Your task to perform on an android device: Go to sound settings Image 0: 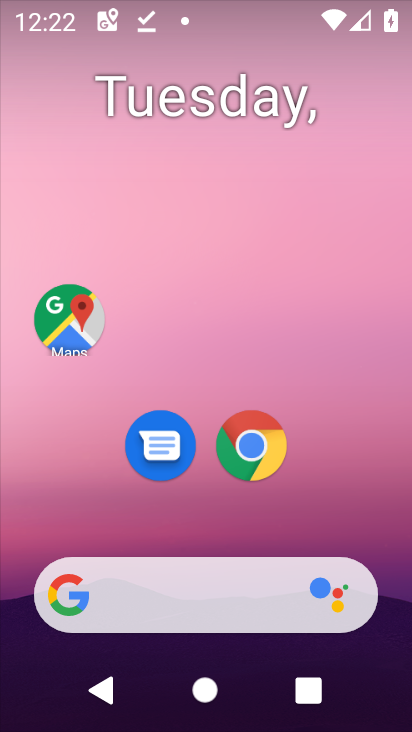
Step 0: drag from (312, 491) to (268, 42)
Your task to perform on an android device: Go to sound settings Image 1: 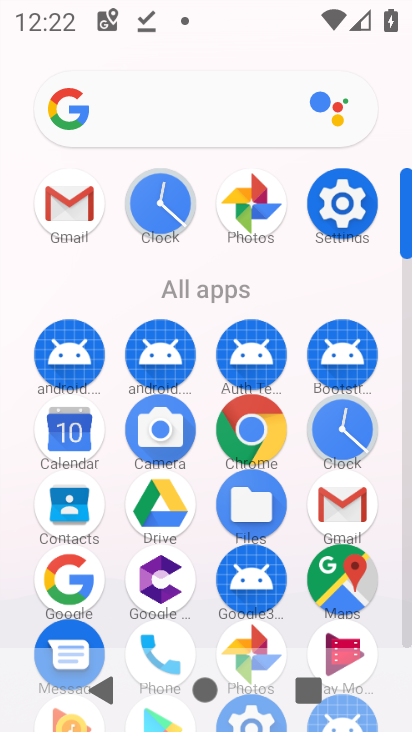
Step 1: click (344, 204)
Your task to perform on an android device: Go to sound settings Image 2: 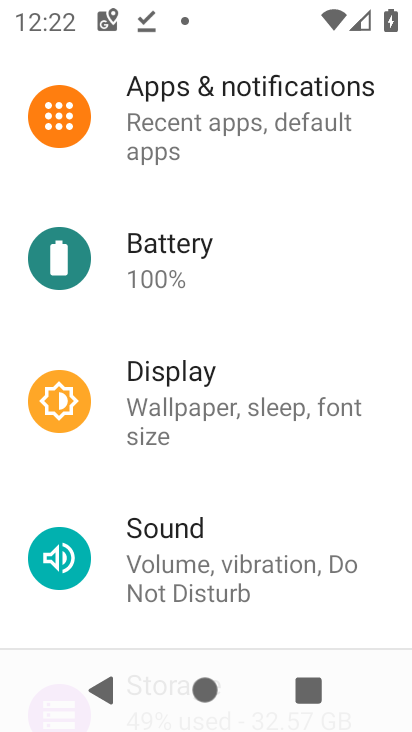
Step 2: click (155, 533)
Your task to perform on an android device: Go to sound settings Image 3: 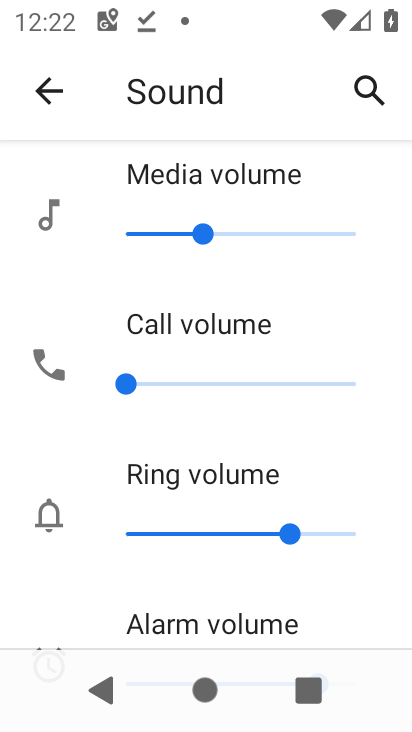
Step 3: task complete